Your task to perform on an android device: Find coffee shops on Maps Image 0: 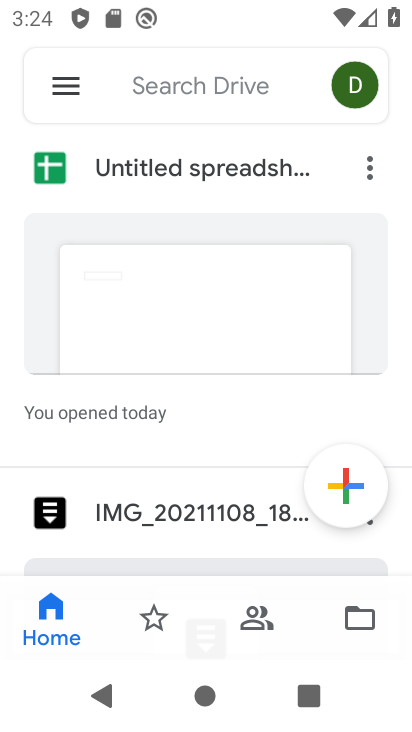
Step 0: press home button
Your task to perform on an android device: Find coffee shops on Maps Image 1: 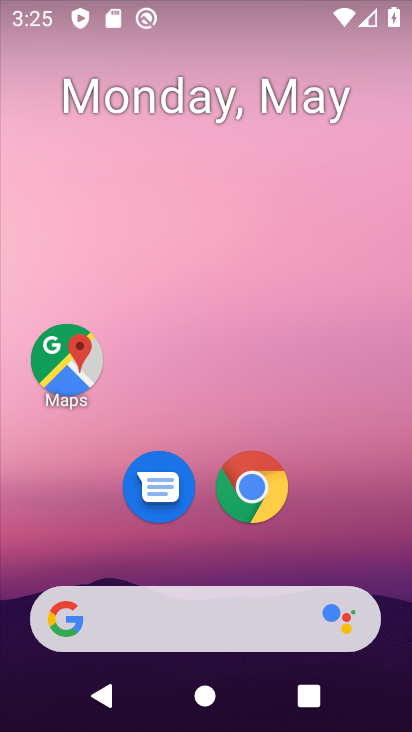
Step 1: drag from (214, 588) to (172, 170)
Your task to perform on an android device: Find coffee shops on Maps Image 2: 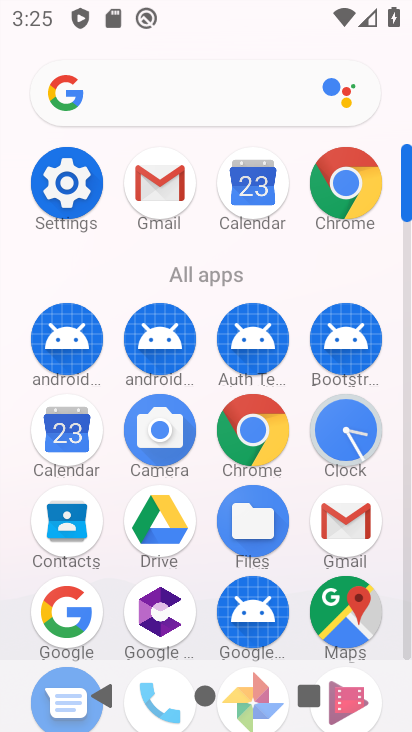
Step 2: drag from (137, 588) to (83, 223)
Your task to perform on an android device: Find coffee shops on Maps Image 3: 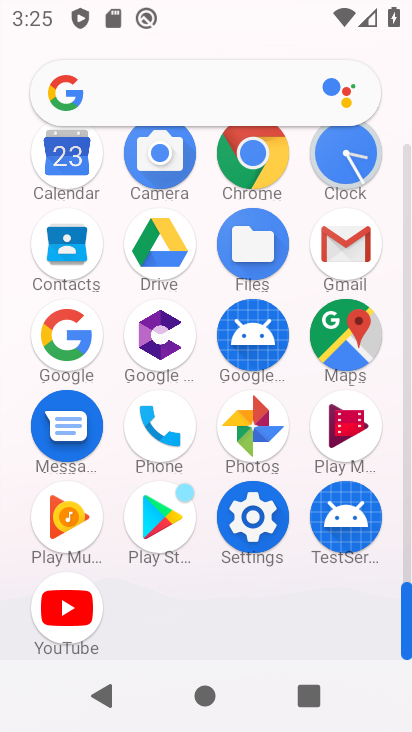
Step 3: click (339, 348)
Your task to perform on an android device: Find coffee shops on Maps Image 4: 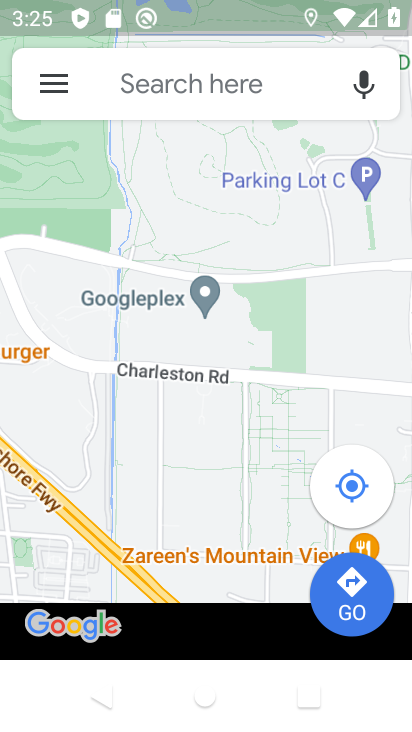
Step 4: click (194, 84)
Your task to perform on an android device: Find coffee shops on Maps Image 5: 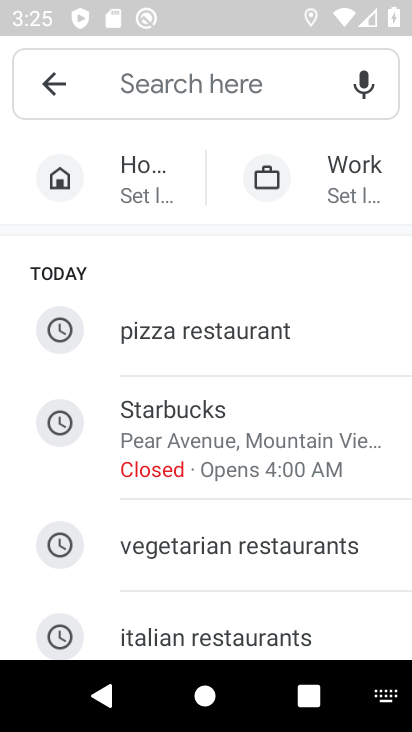
Step 5: drag from (211, 636) to (201, 315)
Your task to perform on an android device: Find coffee shops on Maps Image 6: 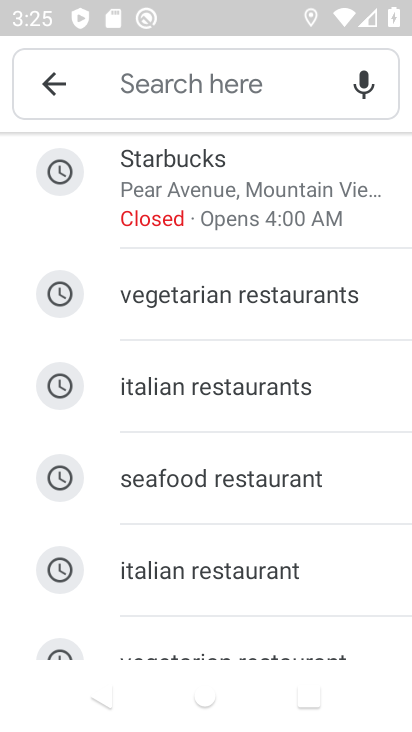
Step 6: drag from (218, 629) to (191, 311)
Your task to perform on an android device: Find coffee shops on Maps Image 7: 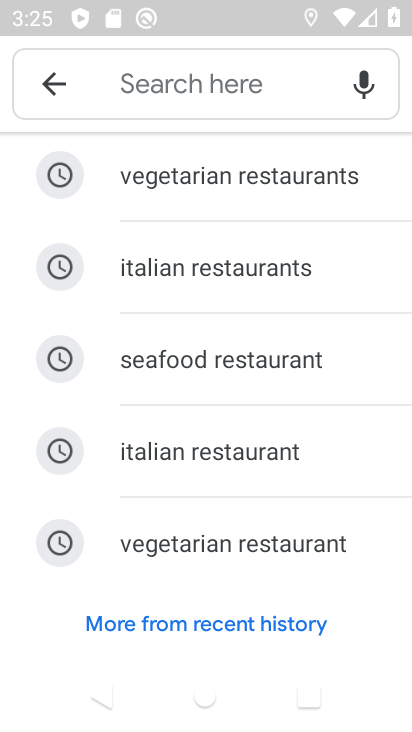
Step 7: click (203, 625)
Your task to perform on an android device: Find coffee shops on Maps Image 8: 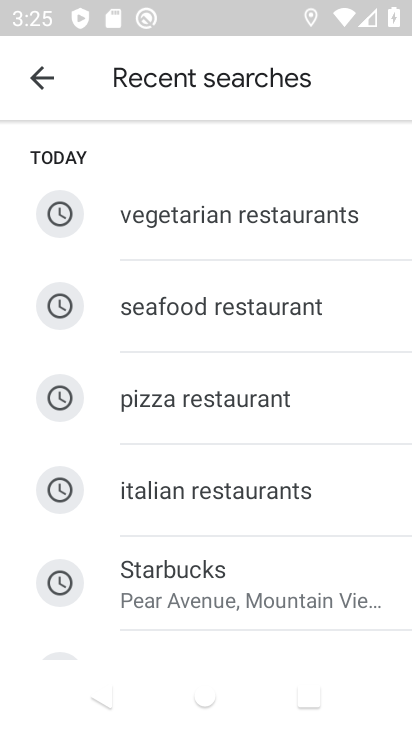
Step 8: drag from (203, 613) to (173, 246)
Your task to perform on an android device: Find coffee shops on Maps Image 9: 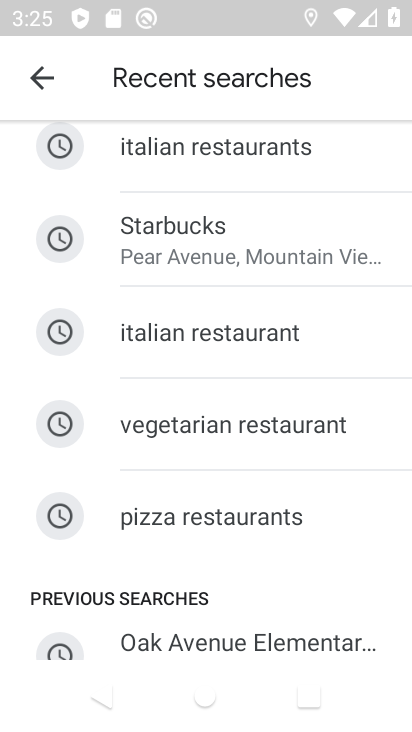
Step 9: drag from (199, 632) to (193, 300)
Your task to perform on an android device: Find coffee shops on Maps Image 10: 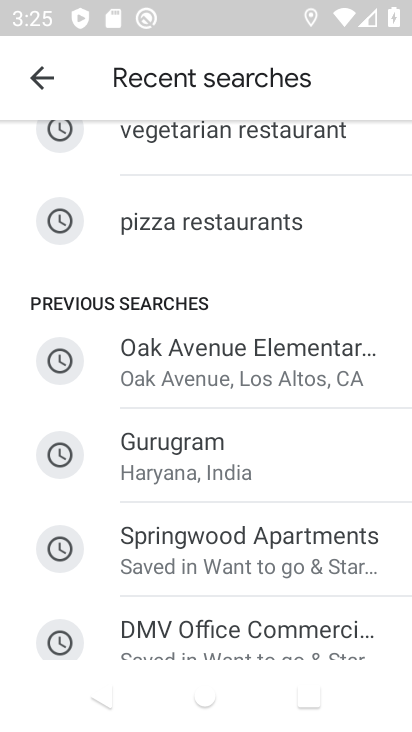
Step 10: drag from (191, 598) to (172, 250)
Your task to perform on an android device: Find coffee shops on Maps Image 11: 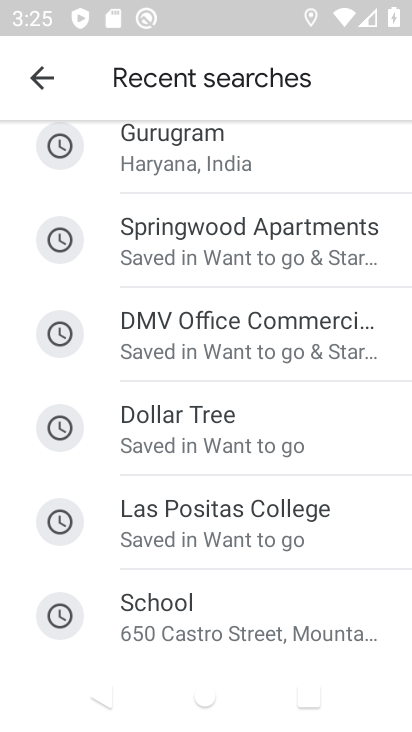
Step 11: click (50, 72)
Your task to perform on an android device: Find coffee shops on Maps Image 12: 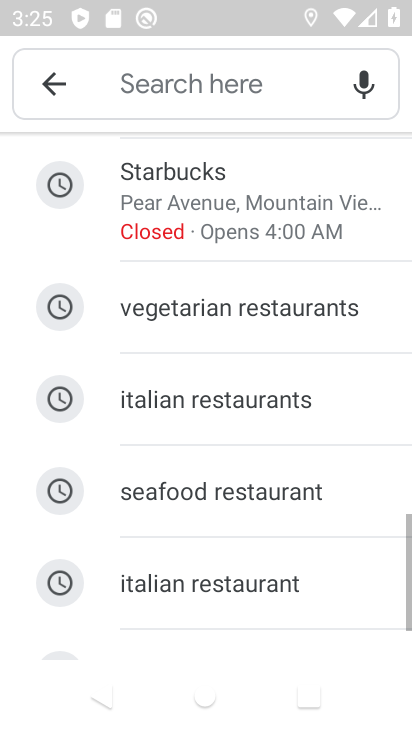
Step 12: click (176, 81)
Your task to perform on an android device: Find coffee shops on Maps Image 13: 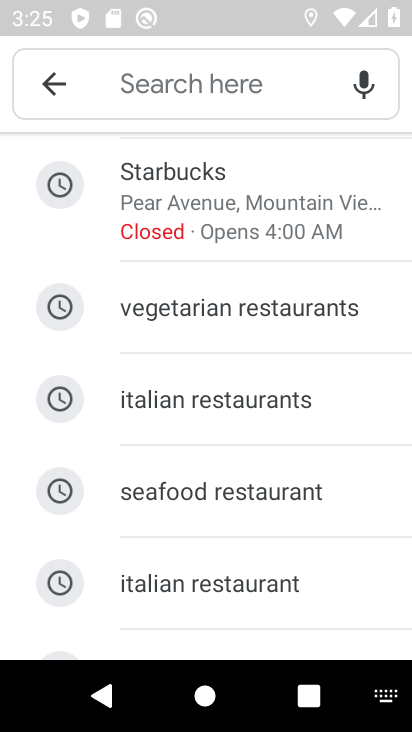
Step 13: type "coffee shopes"
Your task to perform on an android device: Find coffee shops on Maps Image 14: 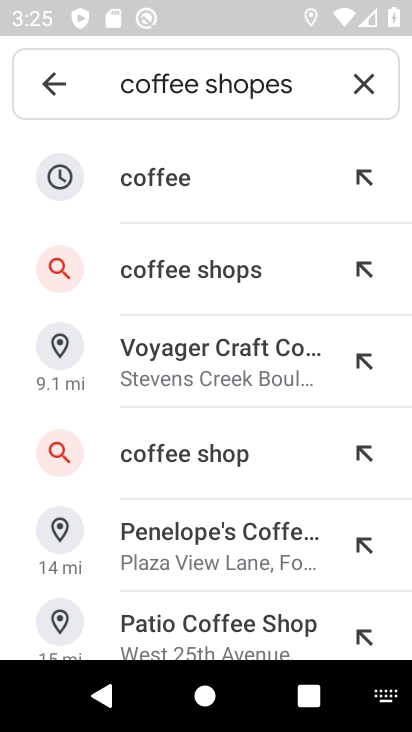
Step 14: click (220, 273)
Your task to perform on an android device: Find coffee shops on Maps Image 15: 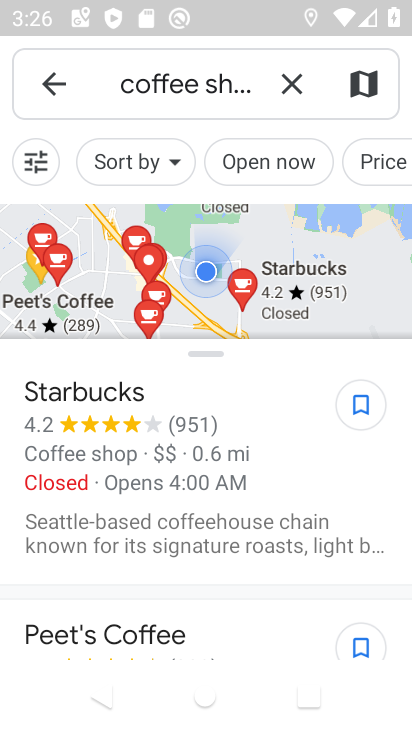
Step 15: task complete